Your task to perform on an android device: Show me productivity apps on the Play Store Image 0: 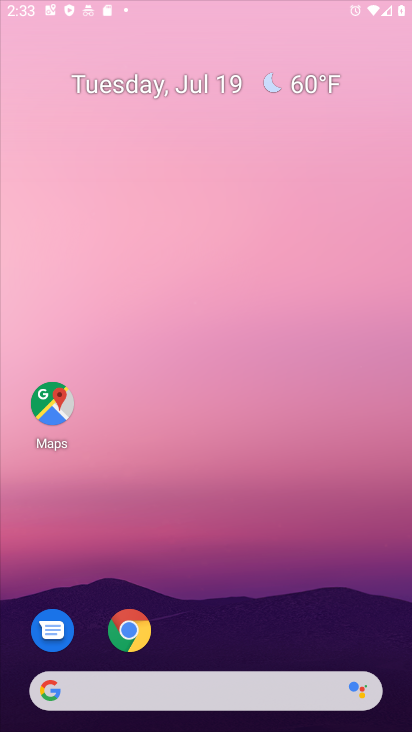
Step 0: click (240, 217)
Your task to perform on an android device: Show me productivity apps on the Play Store Image 1: 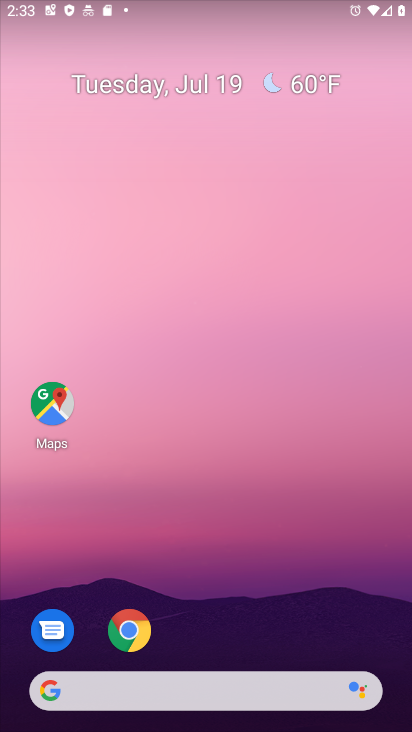
Step 1: drag from (232, 607) to (134, 127)
Your task to perform on an android device: Show me productivity apps on the Play Store Image 2: 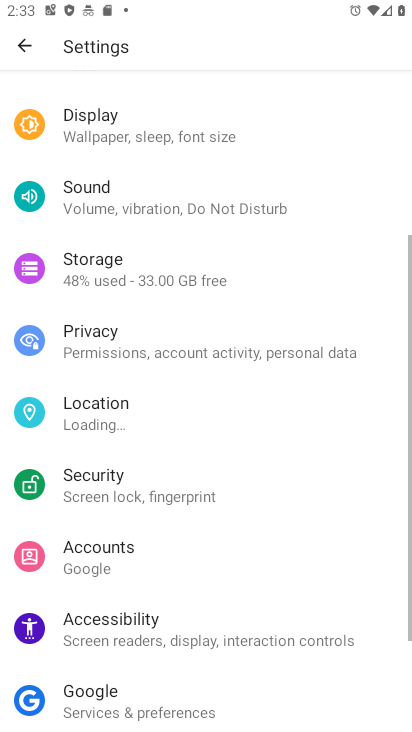
Step 2: drag from (230, 560) to (177, 152)
Your task to perform on an android device: Show me productivity apps on the Play Store Image 3: 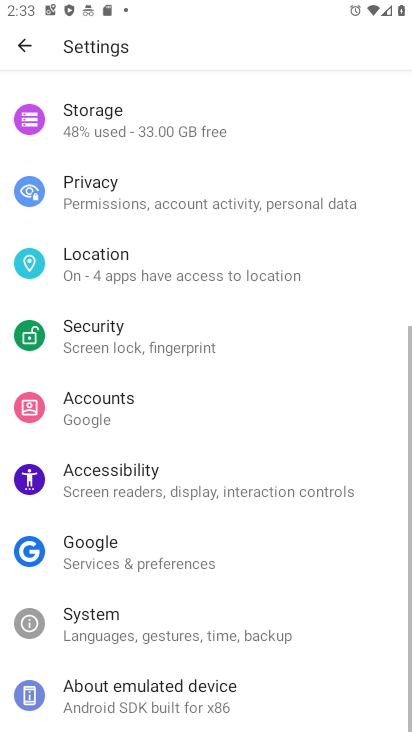
Step 3: drag from (127, 221) to (191, 640)
Your task to perform on an android device: Show me productivity apps on the Play Store Image 4: 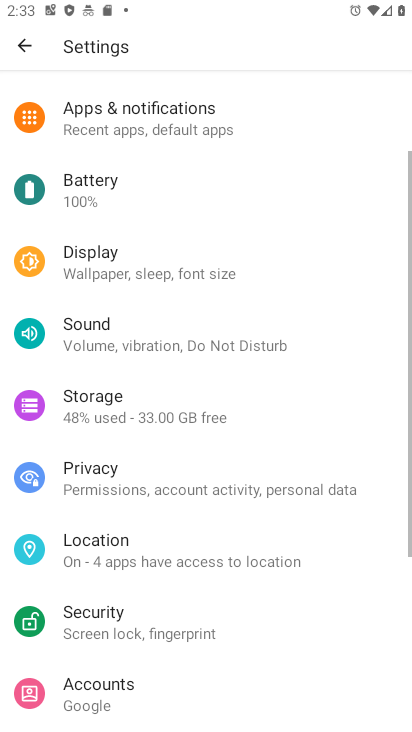
Step 4: drag from (158, 238) to (214, 632)
Your task to perform on an android device: Show me productivity apps on the Play Store Image 5: 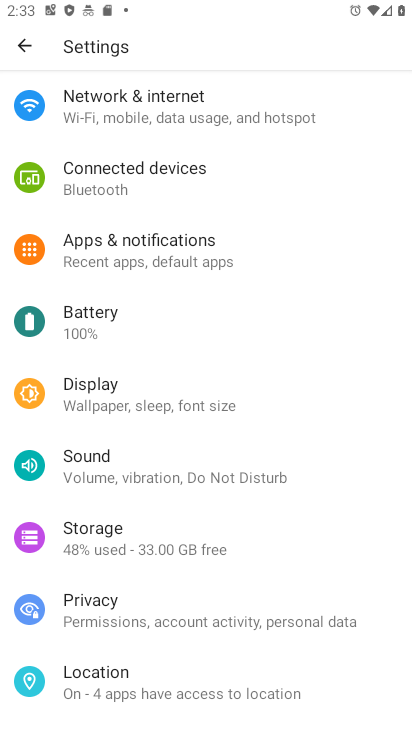
Step 5: click (138, 250)
Your task to perform on an android device: Show me productivity apps on the Play Store Image 6: 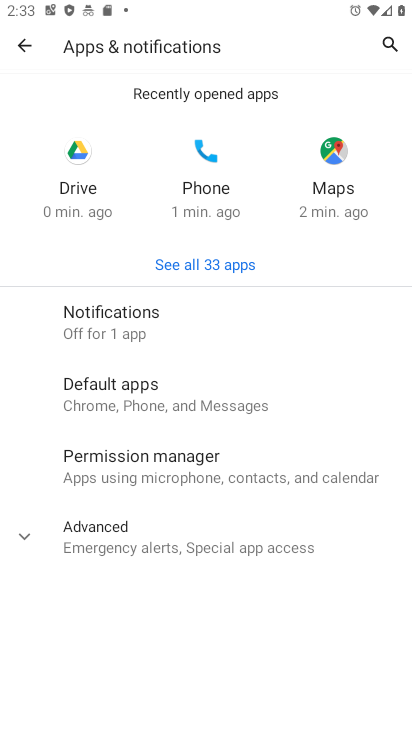
Step 6: click (32, 39)
Your task to perform on an android device: Show me productivity apps on the Play Store Image 7: 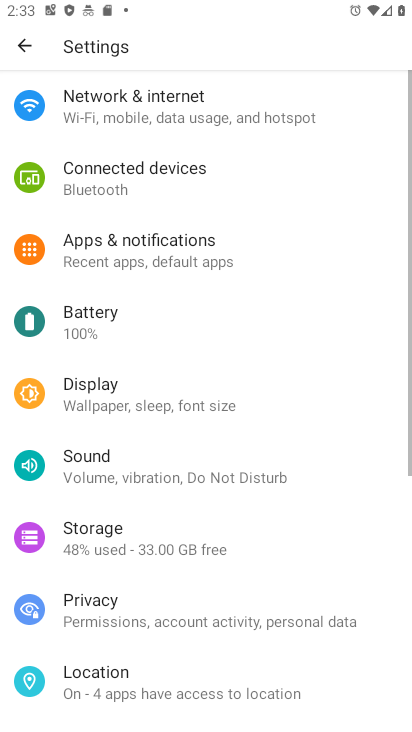
Step 7: press back button
Your task to perform on an android device: Show me productivity apps on the Play Store Image 8: 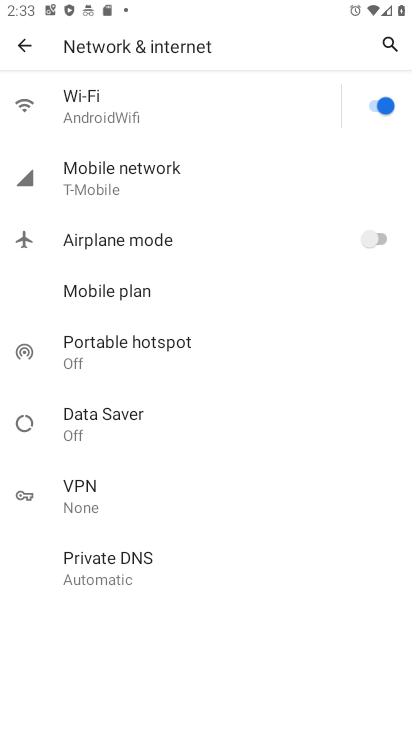
Step 8: press home button
Your task to perform on an android device: Show me productivity apps on the Play Store Image 9: 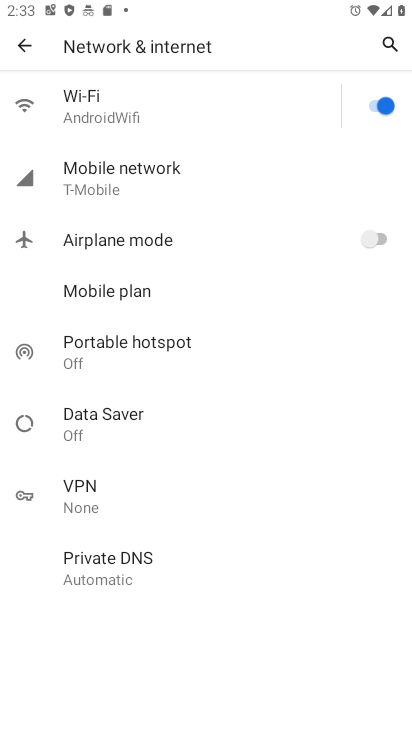
Step 9: press home button
Your task to perform on an android device: Show me productivity apps on the Play Store Image 10: 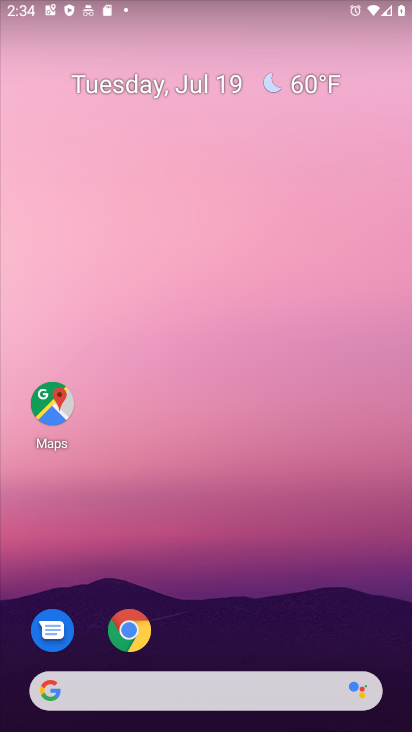
Step 10: drag from (195, 584) to (164, 9)
Your task to perform on an android device: Show me productivity apps on the Play Store Image 11: 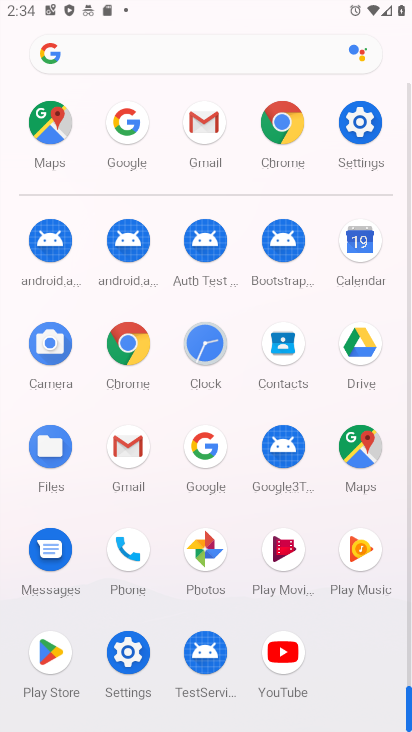
Step 11: click (61, 650)
Your task to perform on an android device: Show me productivity apps on the Play Store Image 12: 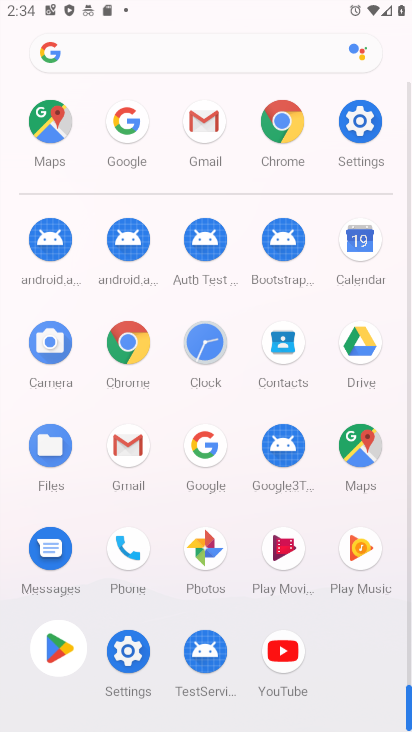
Step 12: click (54, 654)
Your task to perform on an android device: Show me productivity apps on the Play Store Image 13: 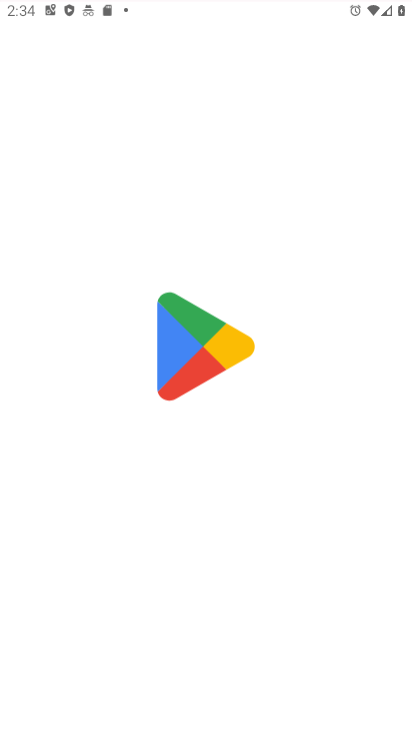
Step 13: click (54, 654)
Your task to perform on an android device: Show me productivity apps on the Play Store Image 14: 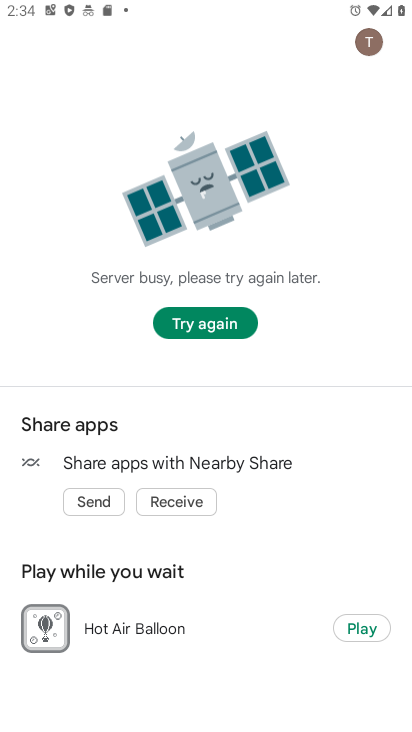
Step 14: click (205, 326)
Your task to perform on an android device: Show me productivity apps on the Play Store Image 15: 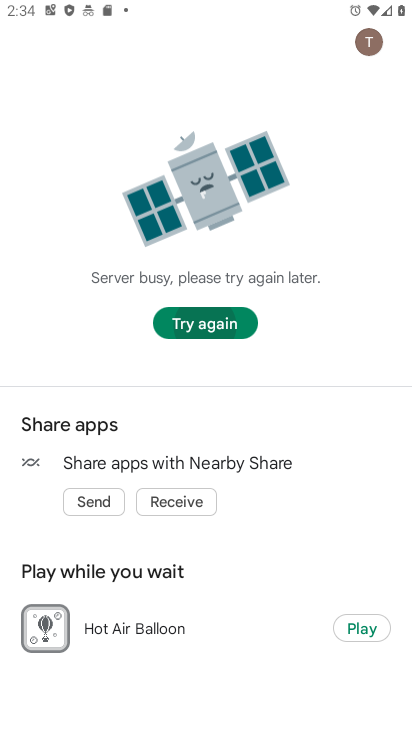
Step 15: click (209, 315)
Your task to perform on an android device: Show me productivity apps on the Play Store Image 16: 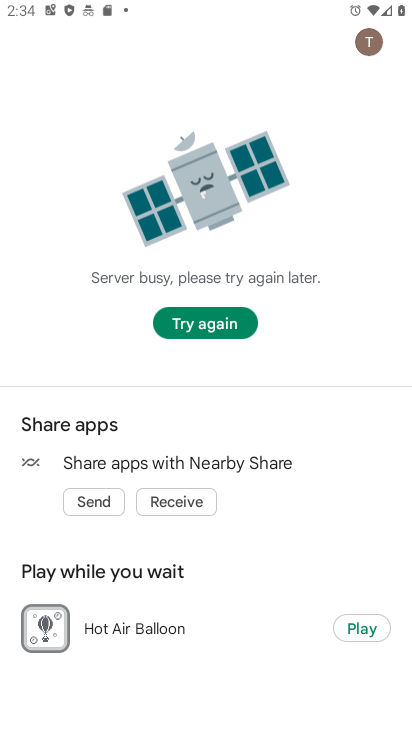
Step 16: task complete